Your task to perform on an android device: What is the recent news? Image 0: 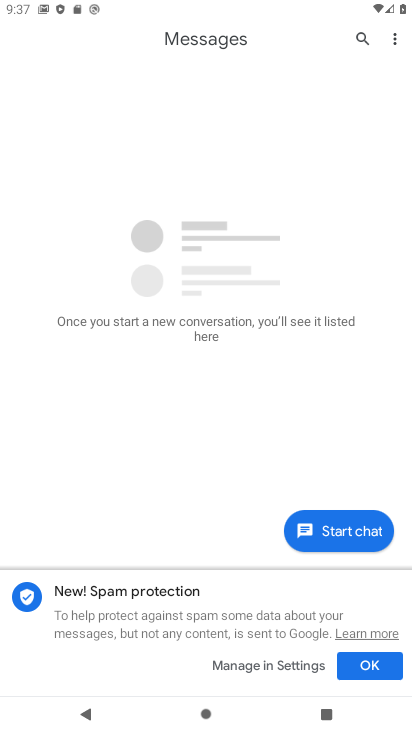
Step 0: press home button
Your task to perform on an android device: What is the recent news? Image 1: 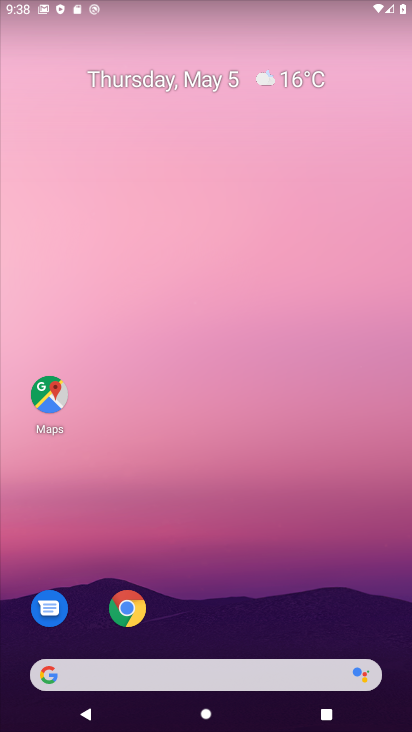
Step 1: drag from (253, 577) to (185, 263)
Your task to perform on an android device: What is the recent news? Image 2: 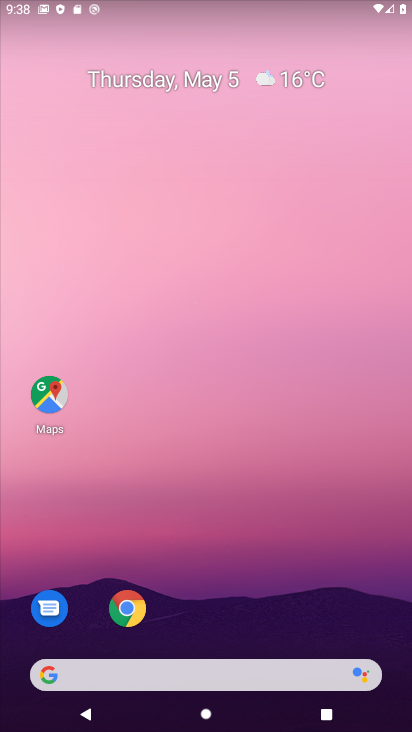
Step 2: click (123, 607)
Your task to perform on an android device: What is the recent news? Image 3: 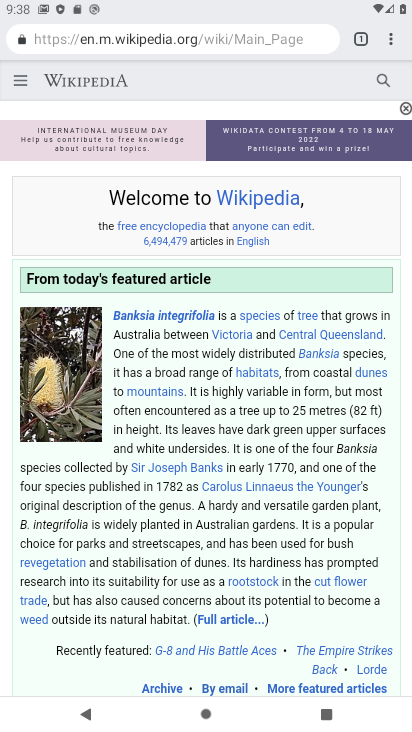
Step 3: click (242, 30)
Your task to perform on an android device: What is the recent news? Image 4: 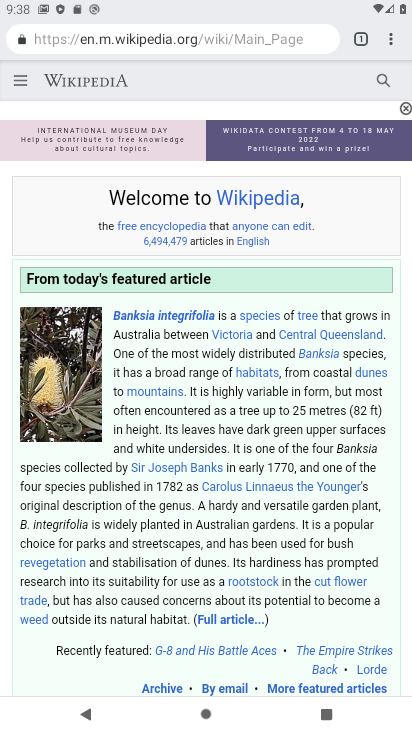
Step 4: click (242, 30)
Your task to perform on an android device: What is the recent news? Image 5: 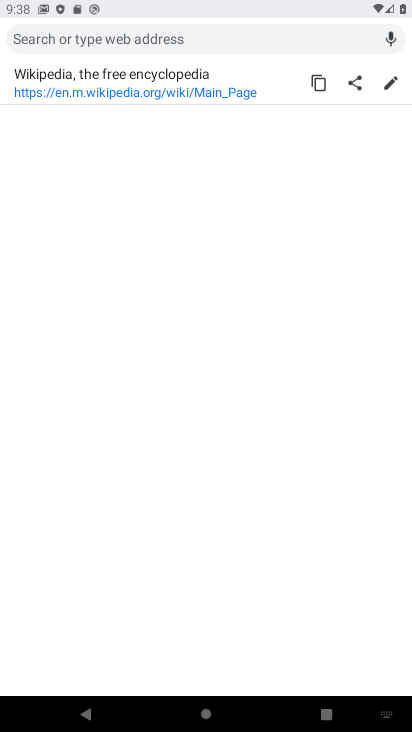
Step 5: type "recent news?"
Your task to perform on an android device: What is the recent news? Image 6: 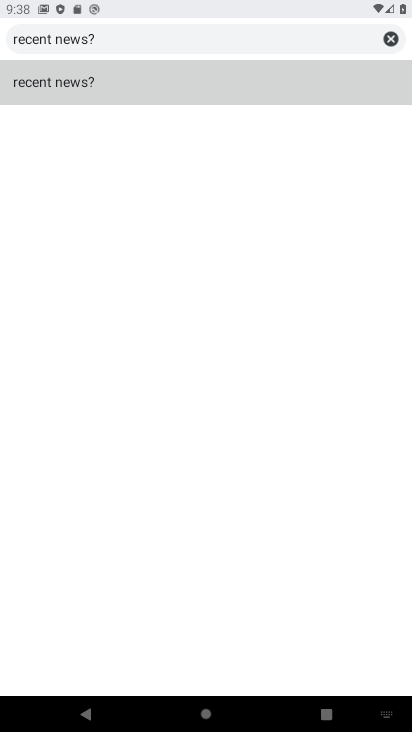
Step 6: click (80, 85)
Your task to perform on an android device: What is the recent news? Image 7: 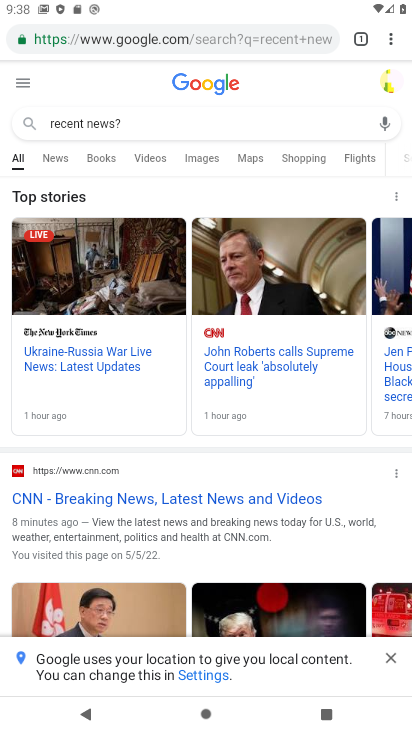
Step 7: click (51, 154)
Your task to perform on an android device: What is the recent news? Image 8: 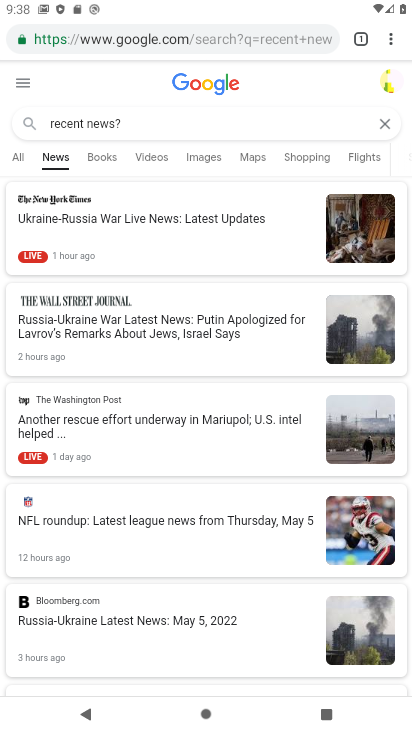
Step 8: task complete